Your task to perform on an android device: change the clock display to show seconds Image 0: 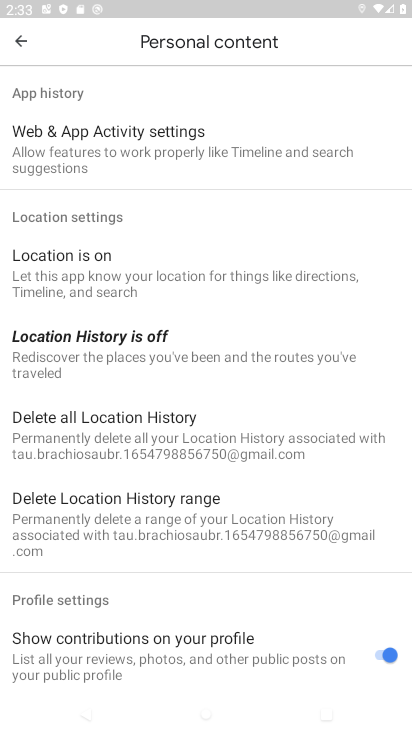
Step 0: press home button
Your task to perform on an android device: change the clock display to show seconds Image 1: 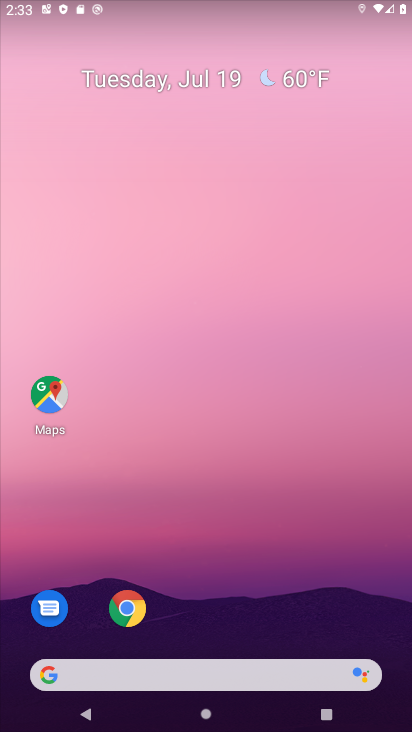
Step 1: drag from (248, 577) to (243, 68)
Your task to perform on an android device: change the clock display to show seconds Image 2: 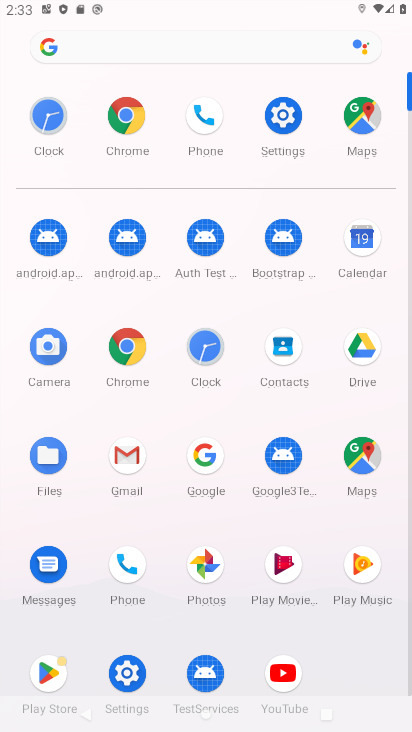
Step 2: click (213, 361)
Your task to perform on an android device: change the clock display to show seconds Image 3: 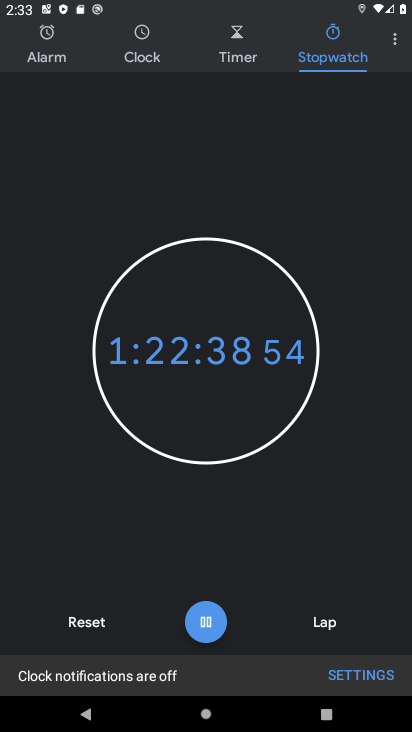
Step 3: click (381, 32)
Your task to perform on an android device: change the clock display to show seconds Image 4: 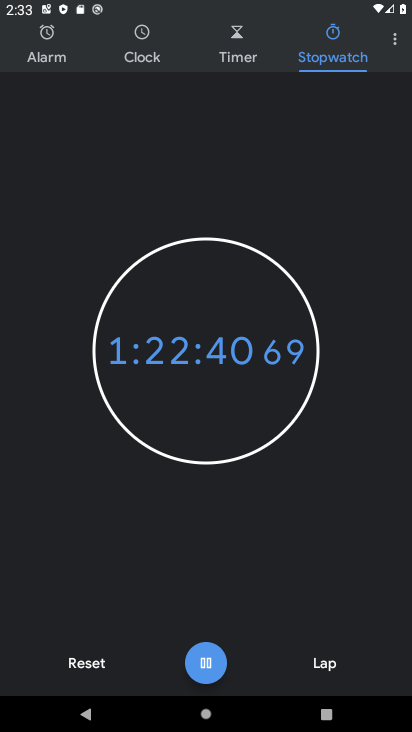
Step 4: click (404, 43)
Your task to perform on an android device: change the clock display to show seconds Image 5: 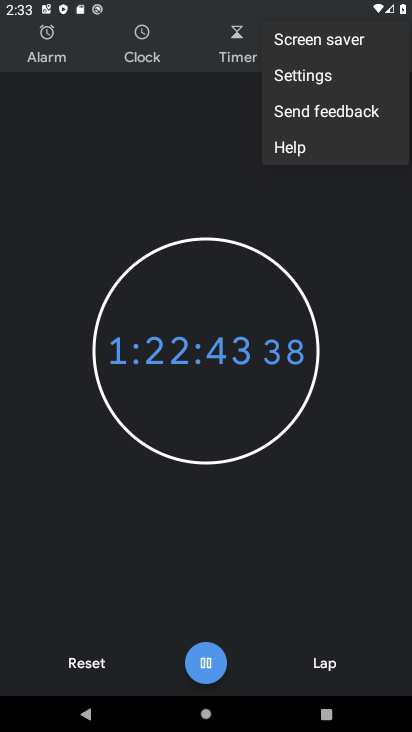
Step 5: click (318, 72)
Your task to perform on an android device: change the clock display to show seconds Image 6: 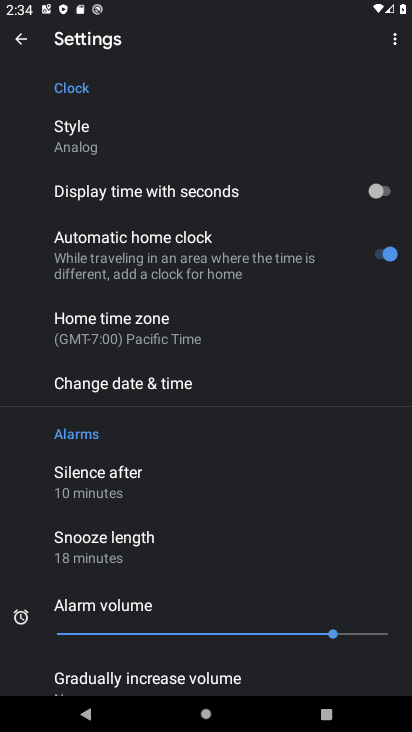
Step 6: click (356, 199)
Your task to perform on an android device: change the clock display to show seconds Image 7: 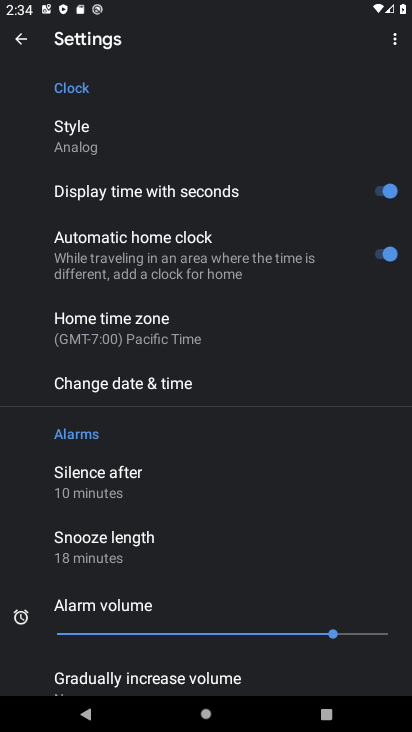
Step 7: task complete